Your task to perform on an android device: uninstall "Spotify: Music and Podcasts" Image 0: 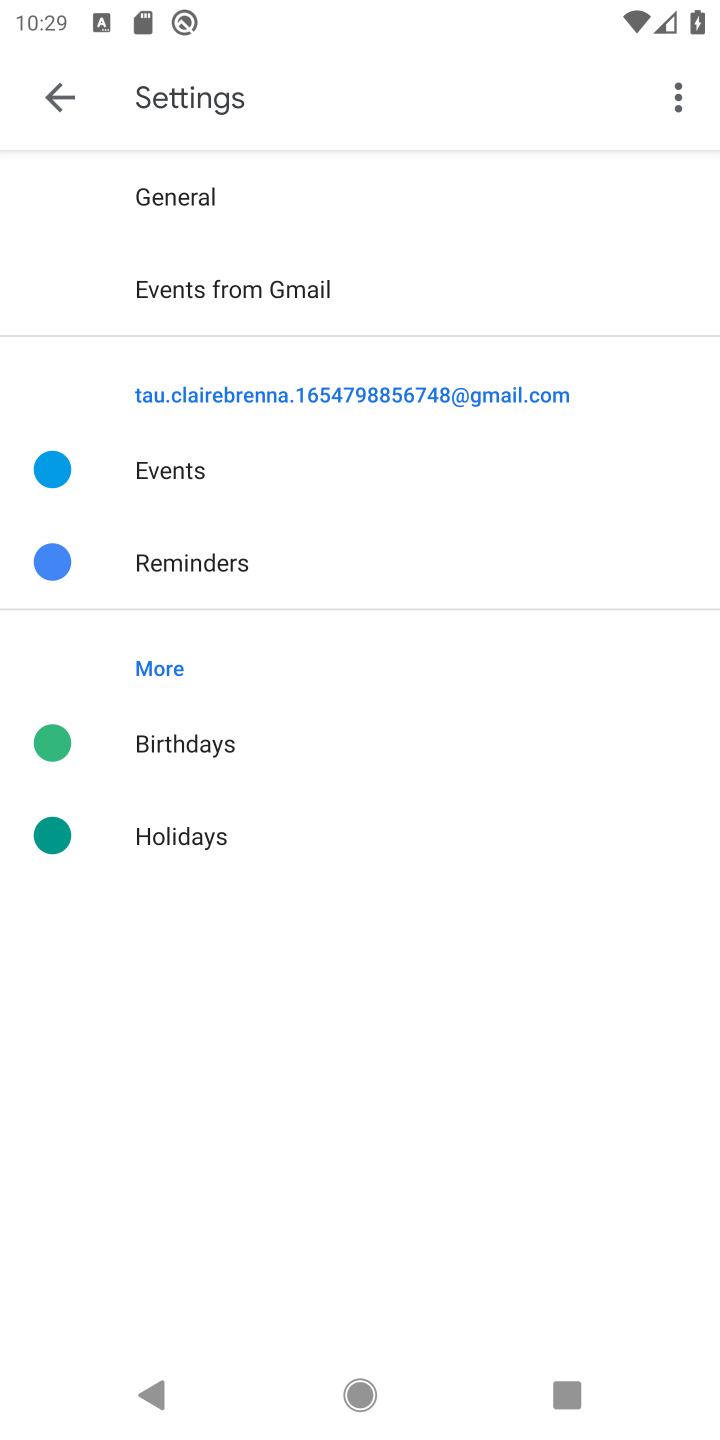
Step 0: press home button
Your task to perform on an android device: uninstall "Spotify: Music and Podcasts" Image 1: 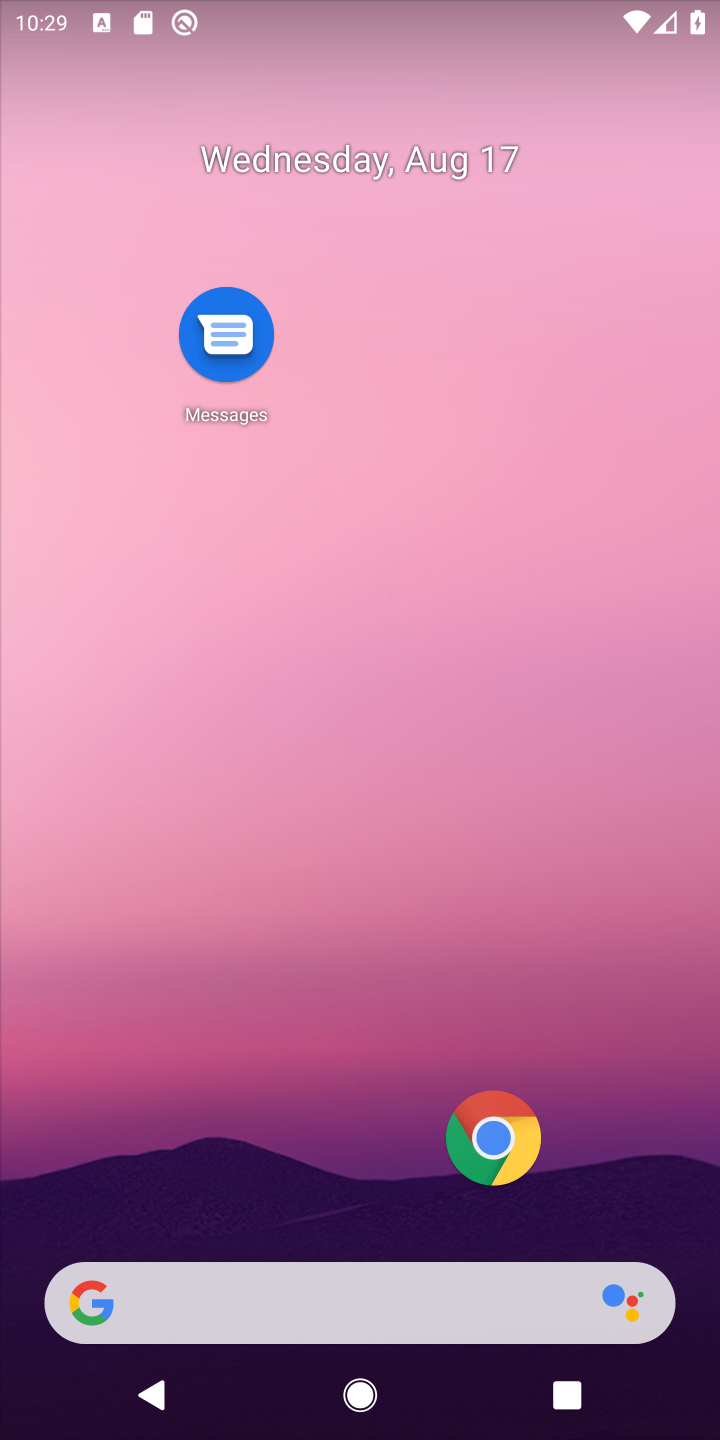
Step 1: drag from (299, 1256) to (354, 345)
Your task to perform on an android device: uninstall "Spotify: Music and Podcasts" Image 2: 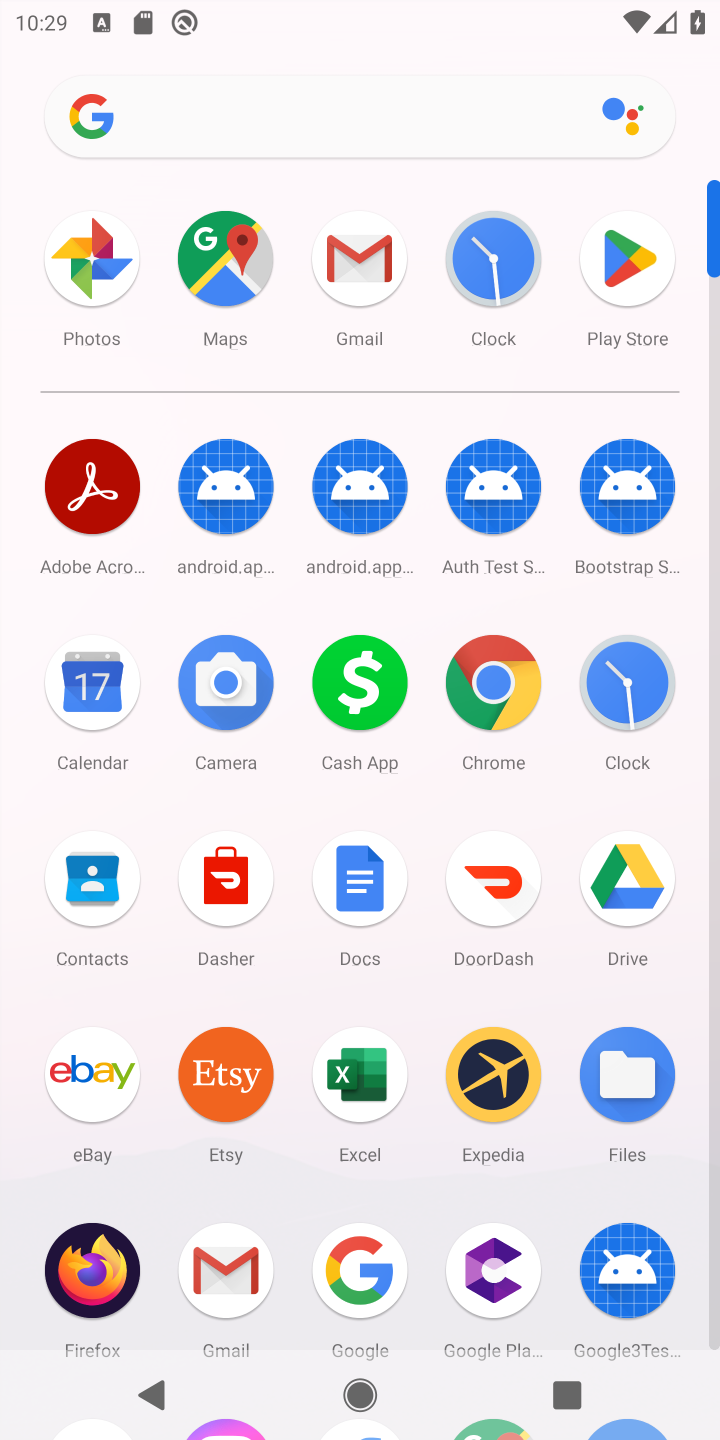
Step 2: click (620, 249)
Your task to perform on an android device: uninstall "Spotify: Music and Podcasts" Image 3: 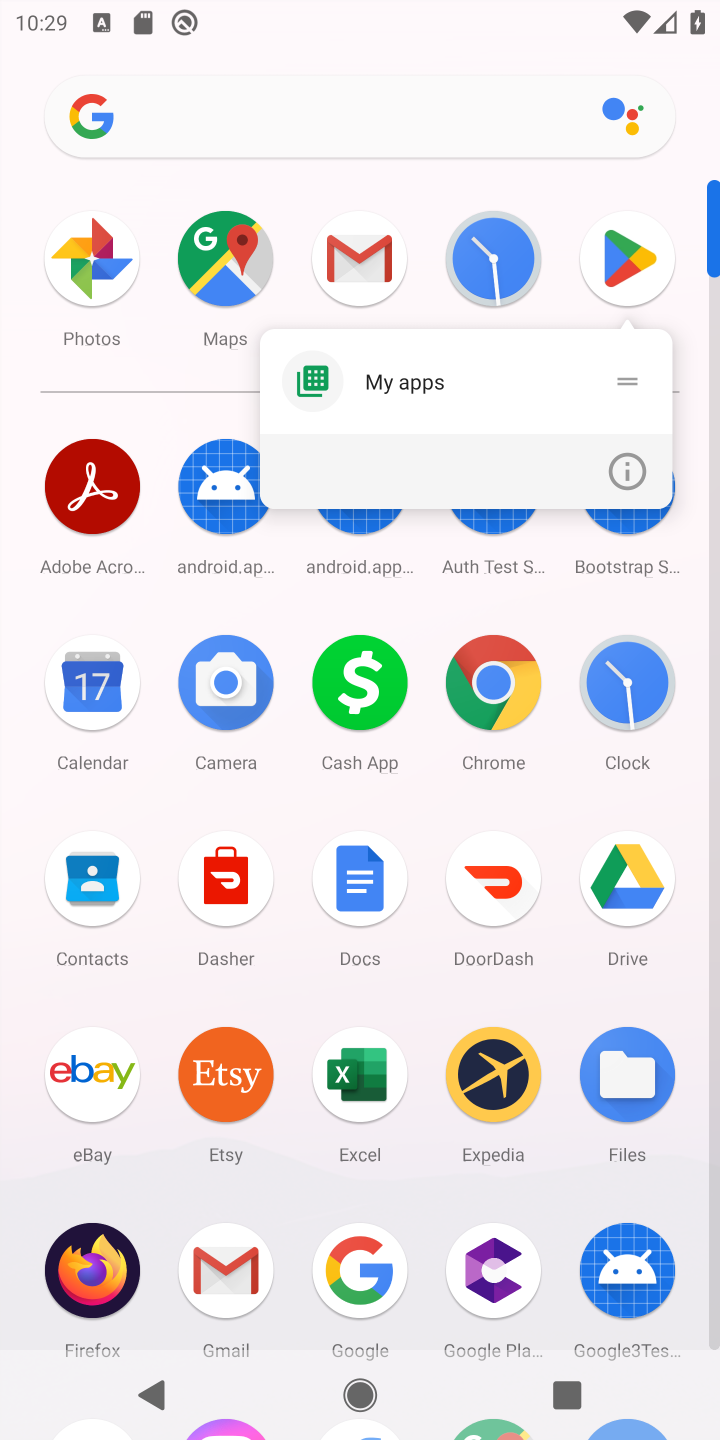
Step 3: click (619, 250)
Your task to perform on an android device: uninstall "Spotify: Music and Podcasts" Image 4: 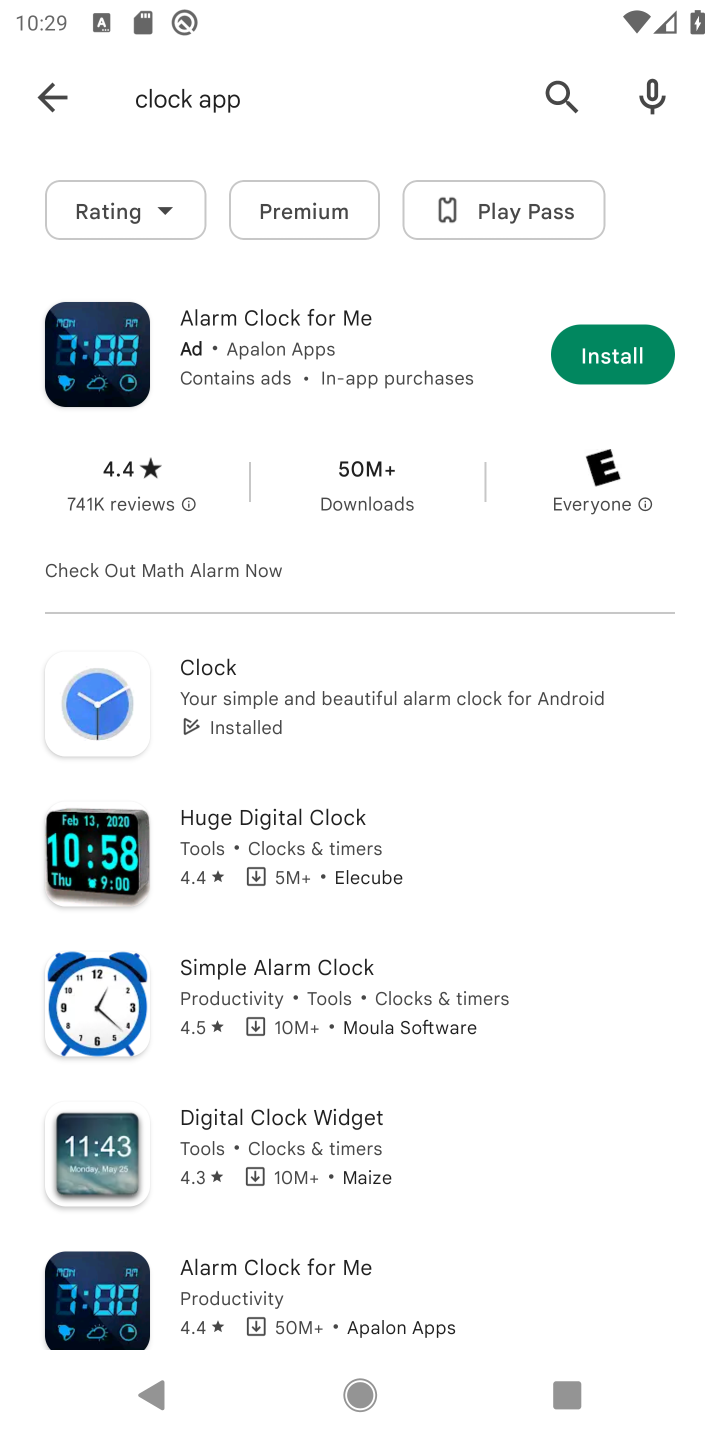
Step 4: click (57, 87)
Your task to perform on an android device: uninstall "Spotify: Music and Podcasts" Image 5: 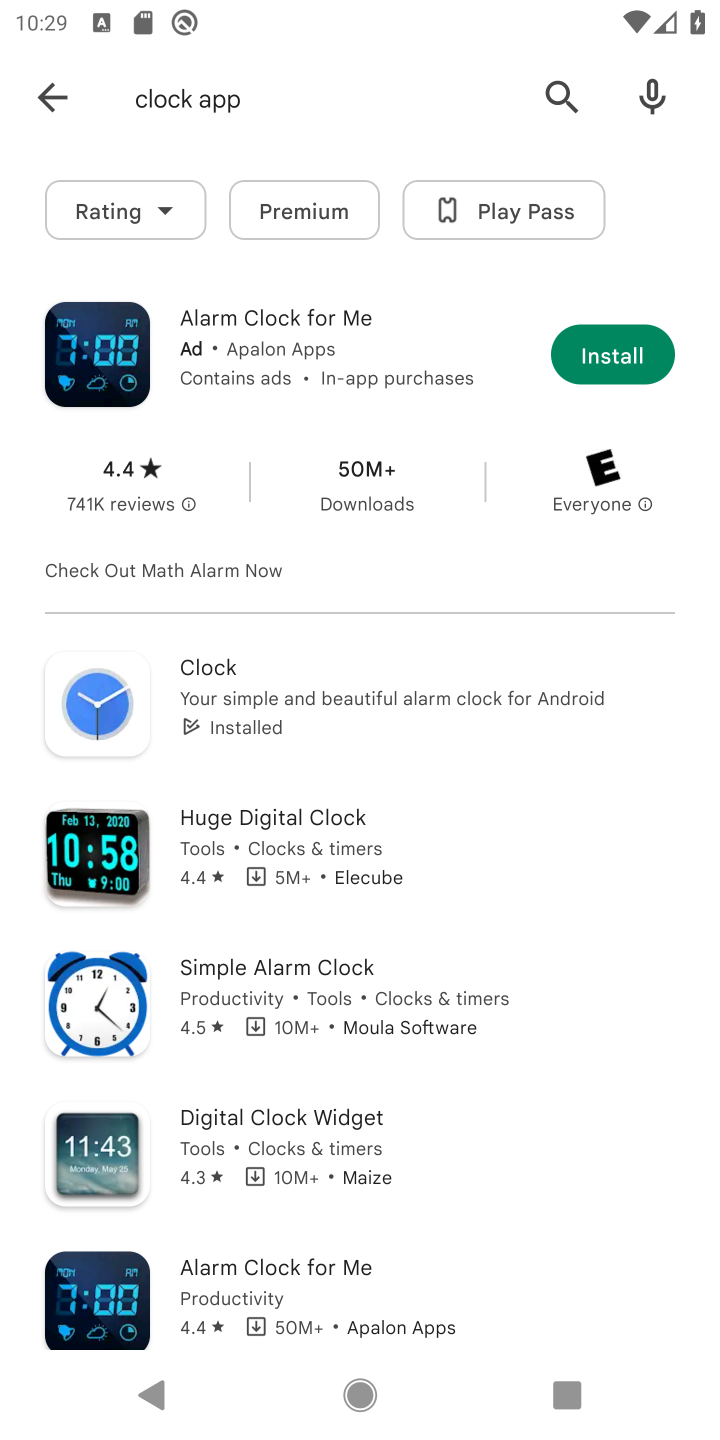
Step 5: click (57, 90)
Your task to perform on an android device: uninstall "Spotify: Music and Podcasts" Image 6: 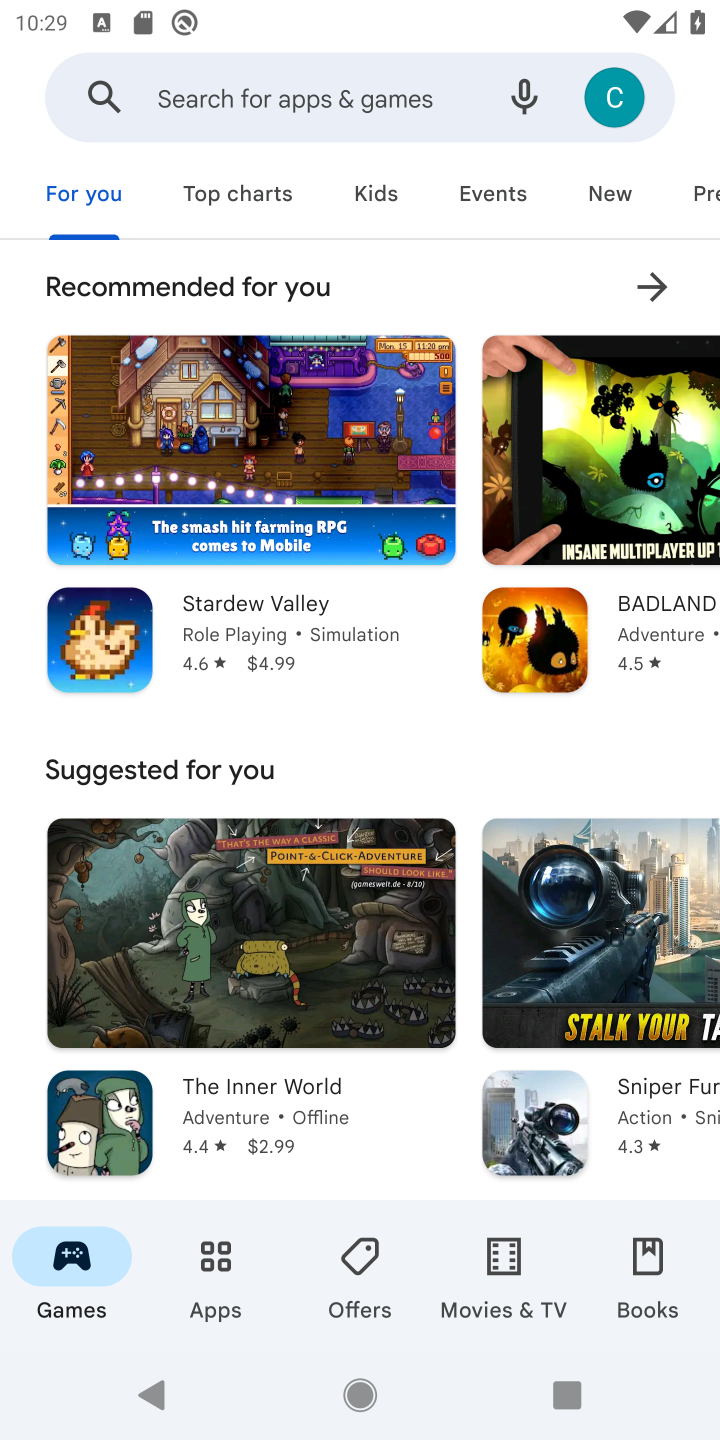
Step 6: click (209, 90)
Your task to perform on an android device: uninstall "Spotify: Music and Podcasts" Image 7: 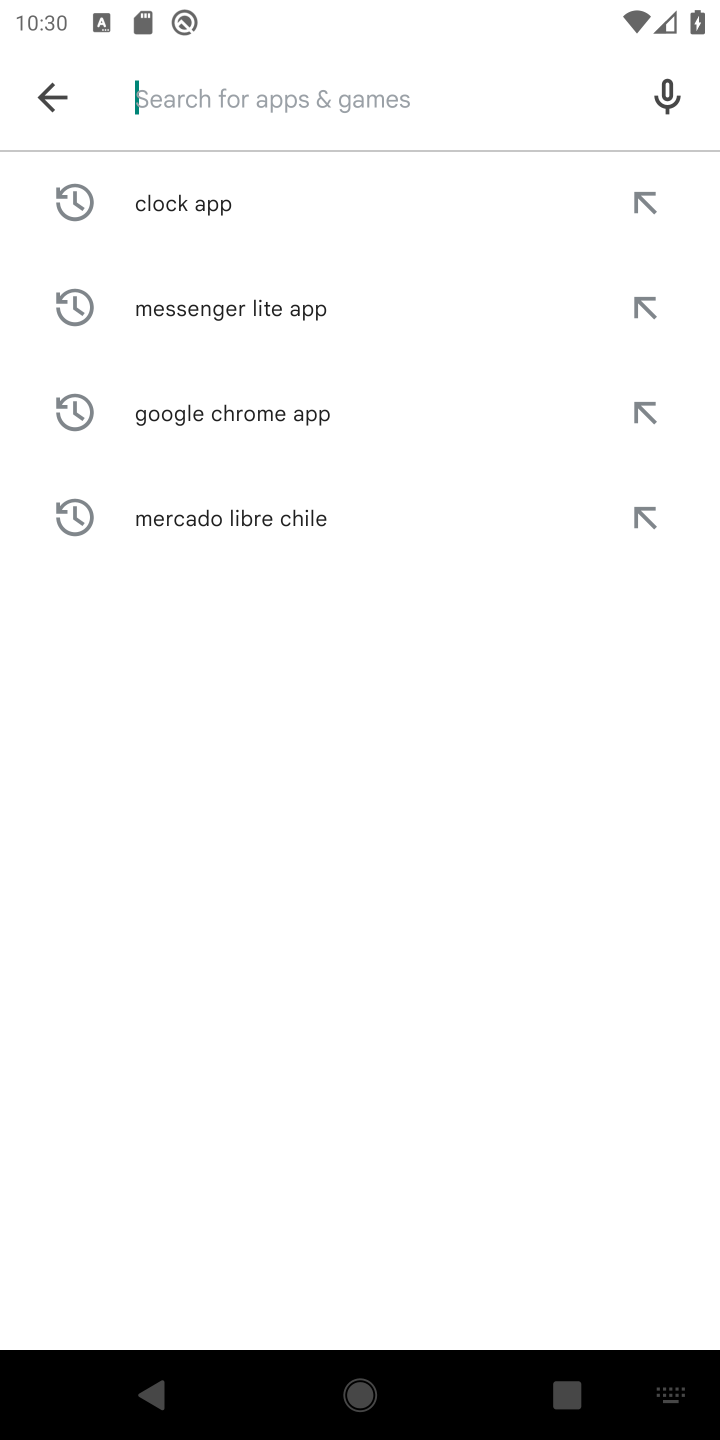
Step 7: type "spotify "
Your task to perform on an android device: uninstall "Spotify: Music and Podcasts" Image 8: 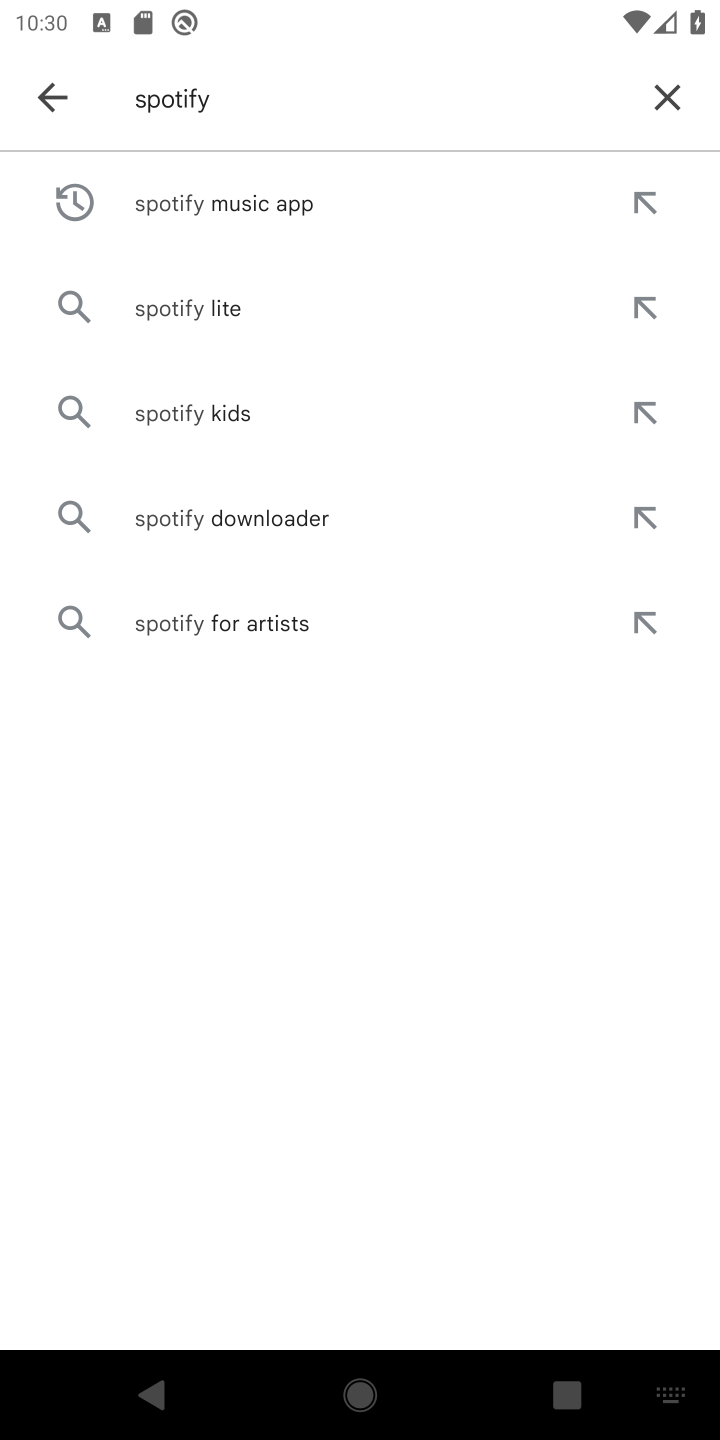
Step 8: click (238, 193)
Your task to perform on an android device: uninstall "Spotify: Music and Podcasts" Image 9: 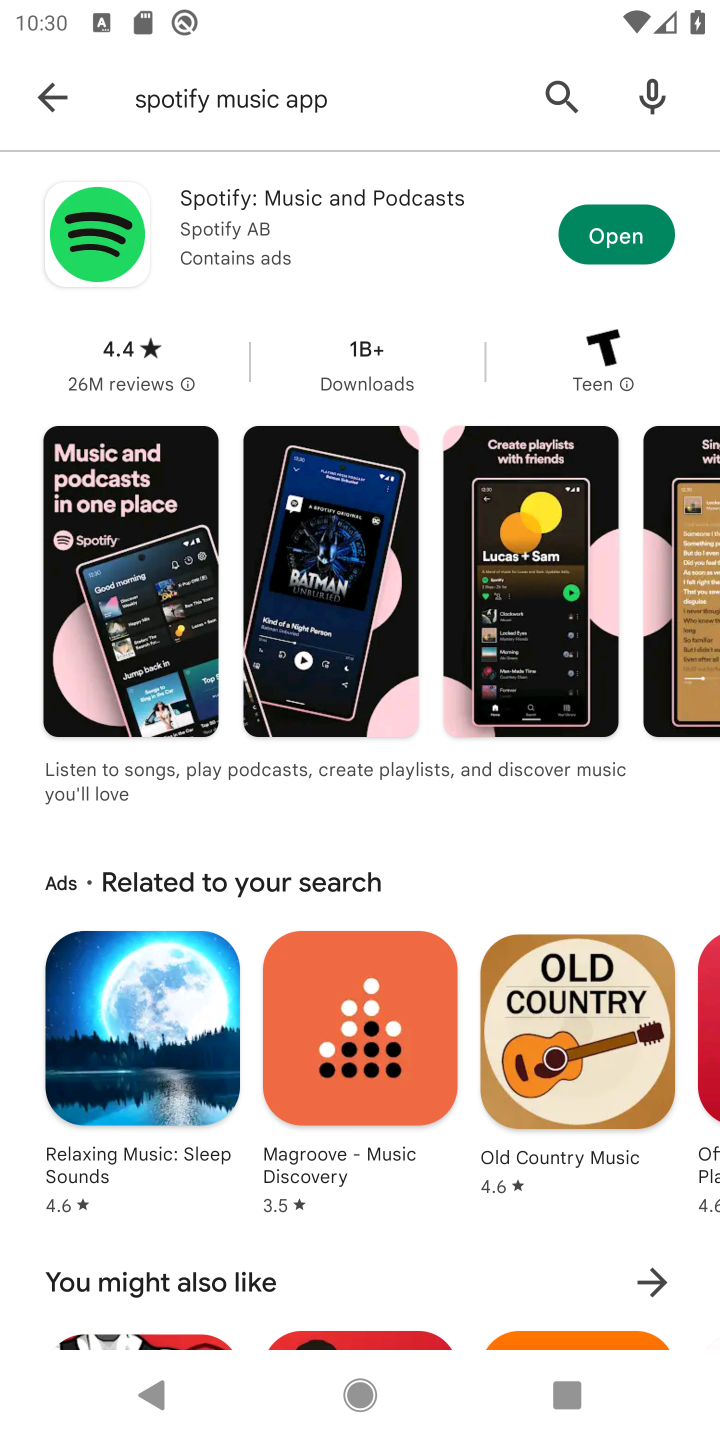
Step 9: click (345, 205)
Your task to perform on an android device: uninstall "Spotify: Music and Podcasts" Image 10: 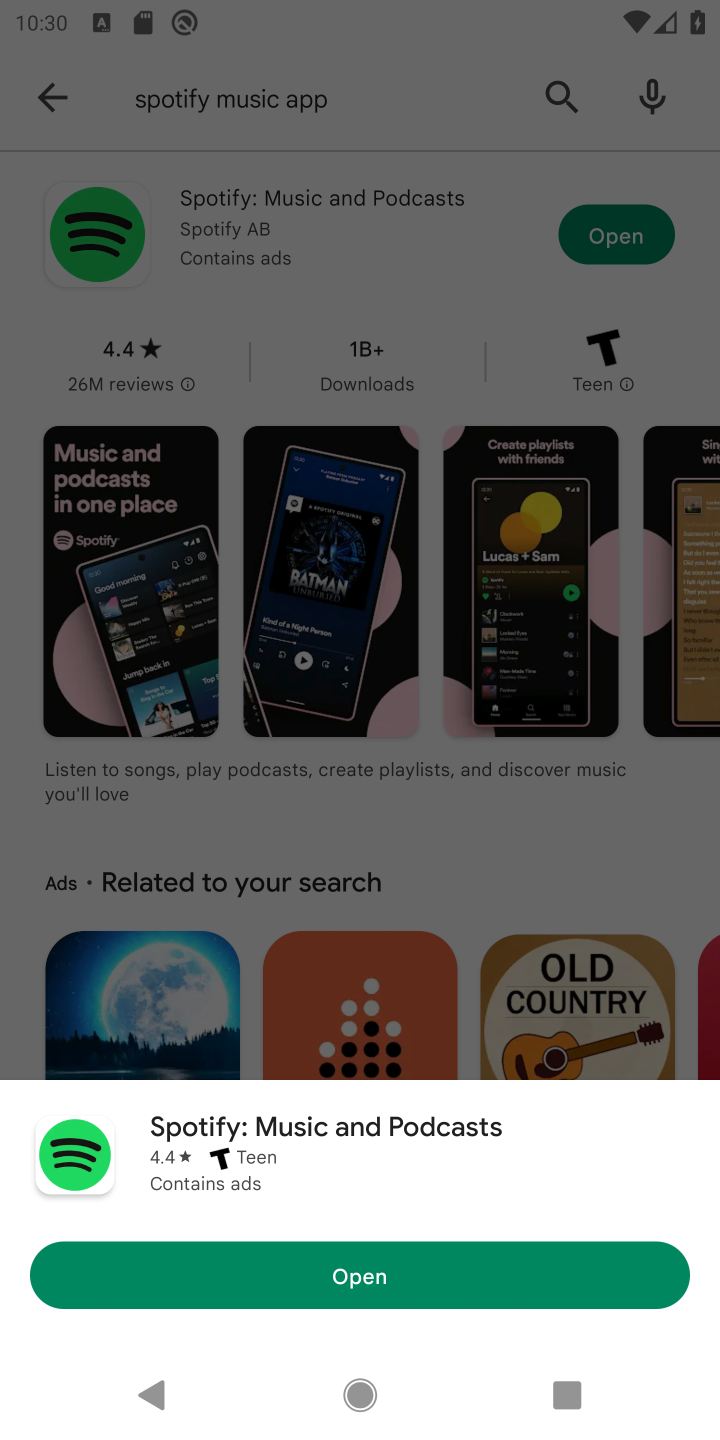
Step 10: click (479, 300)
Your task to perform on an android device: uninstall "Spotify: Music and Podcasts" Image 11: 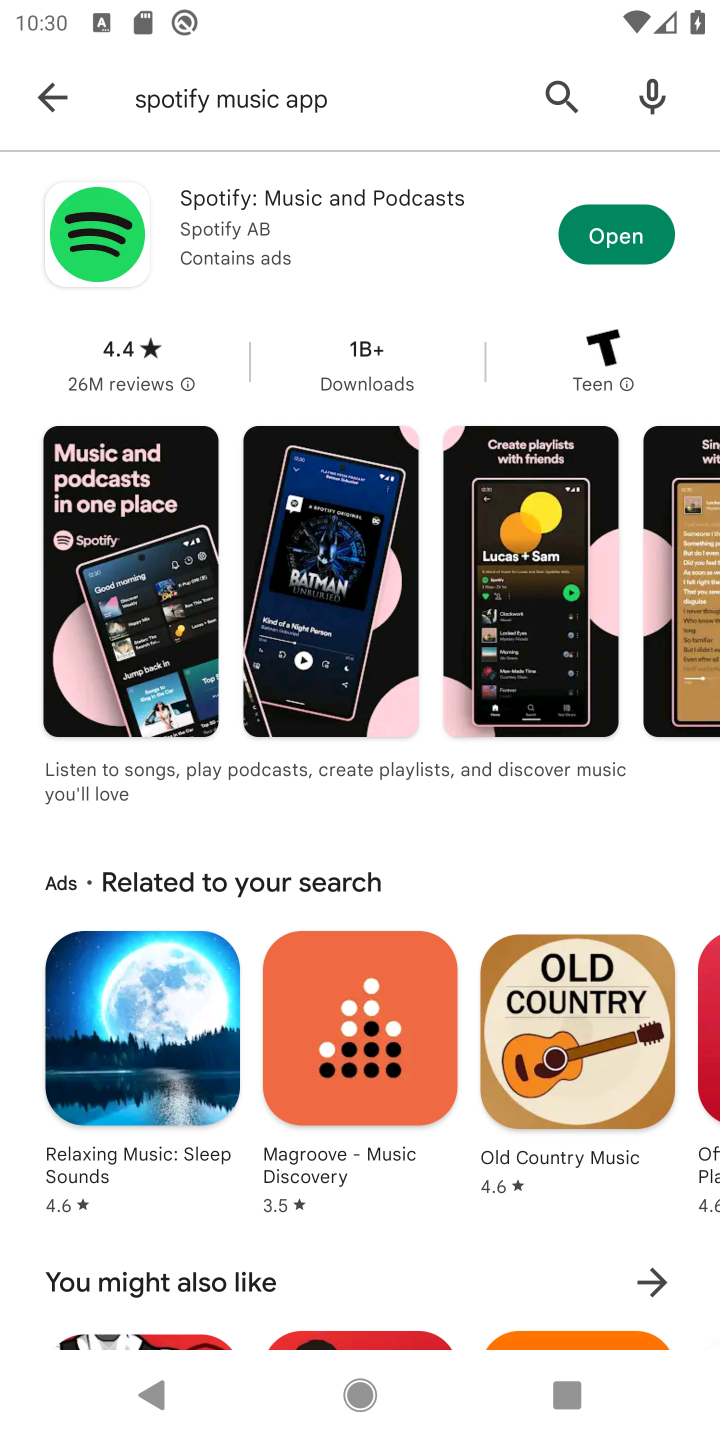
Step 11: click (472, 213)
Your task to perform on an android device: uninstall "Spotify: Music and Podcasts" Image 12: 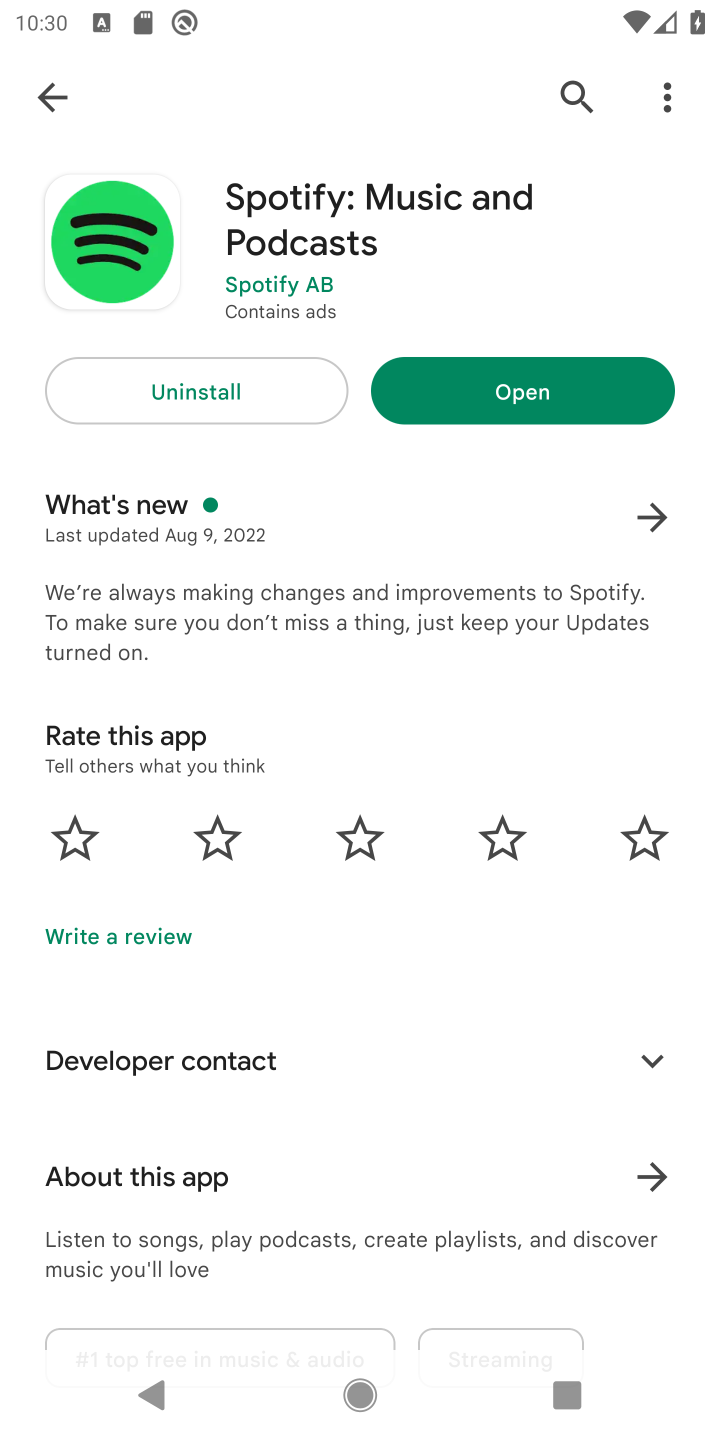
Step 12: click (205, 387)
Your task to perform on an android device: uninstall "Spotify: Music and Podcasts" Image 13: 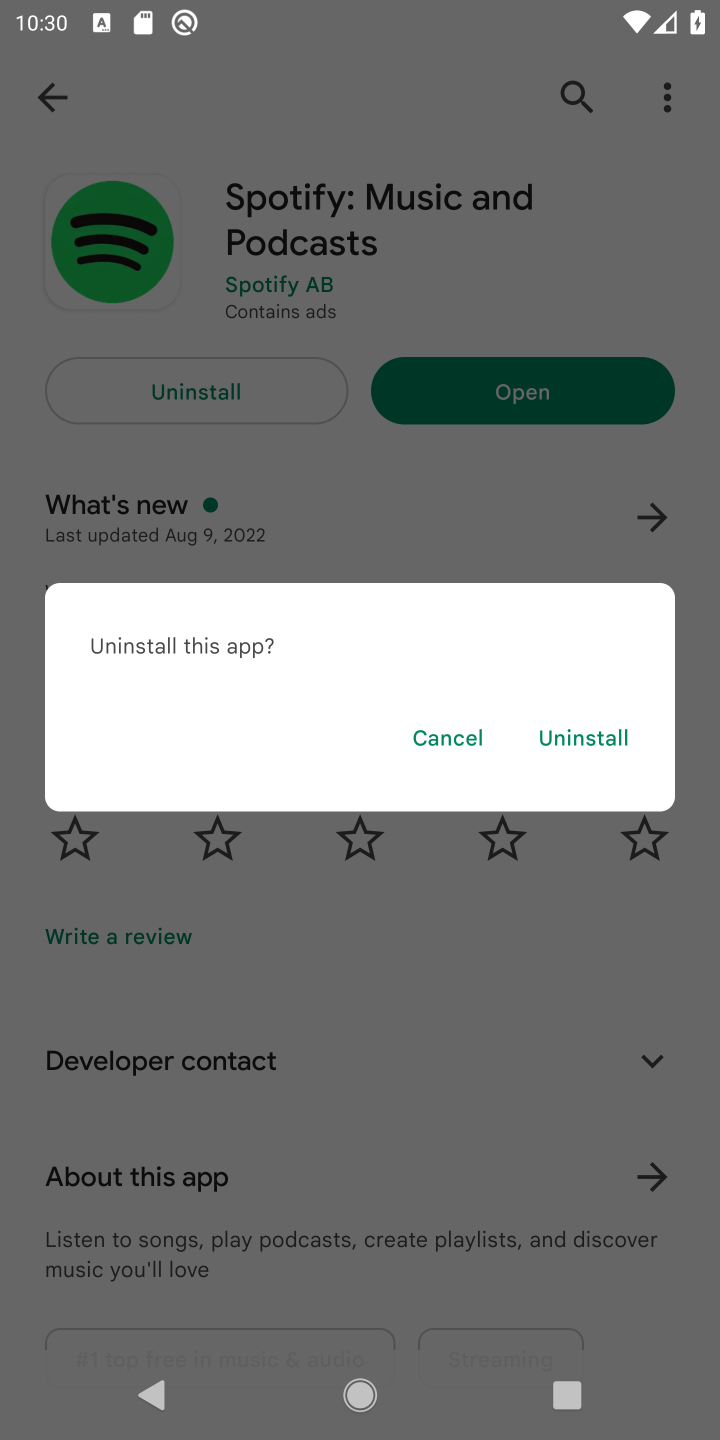
Step 13: click (596, 726)
Your task to perform on an android device: uninstall "Spotify: Music and Podcasts" Image 14: 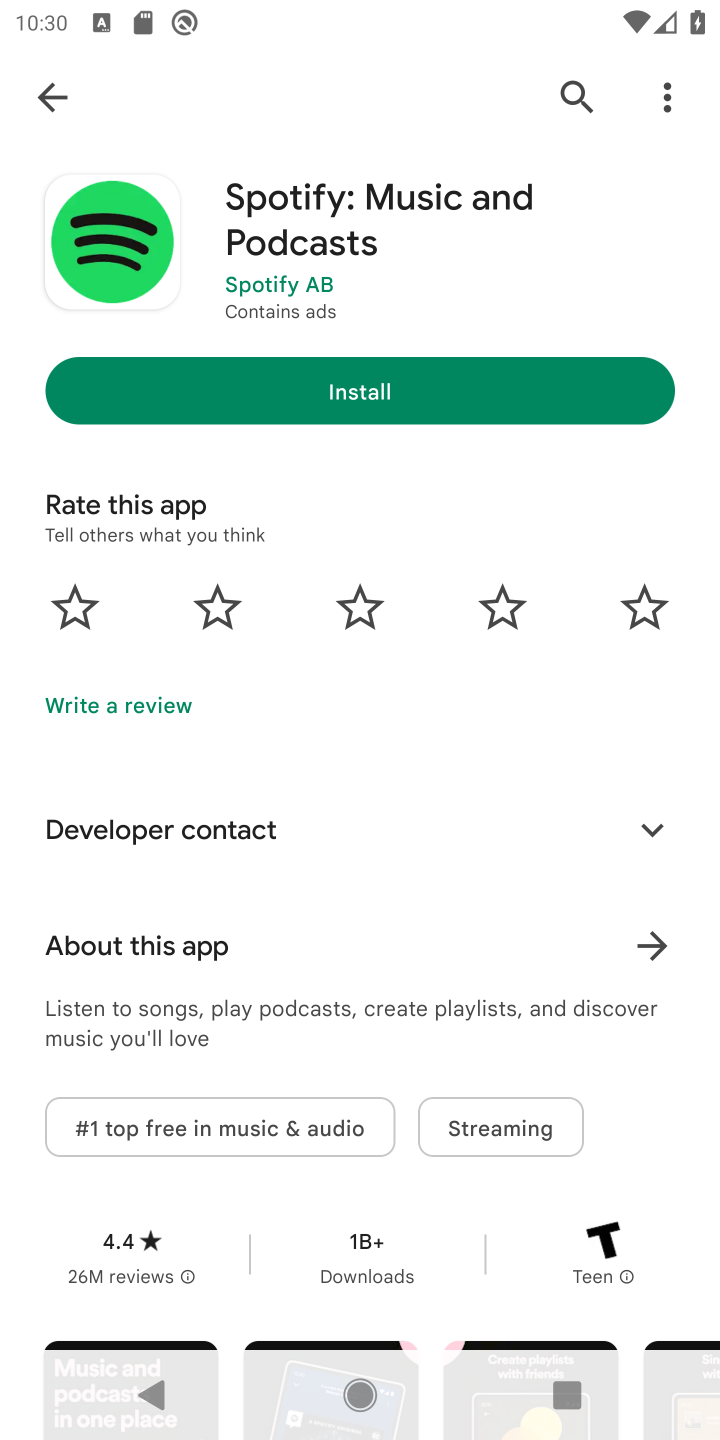
Step 14: task complete